Your task to perform on an android device: Open the Play Movies app and select the watchlist tab. Image 0: 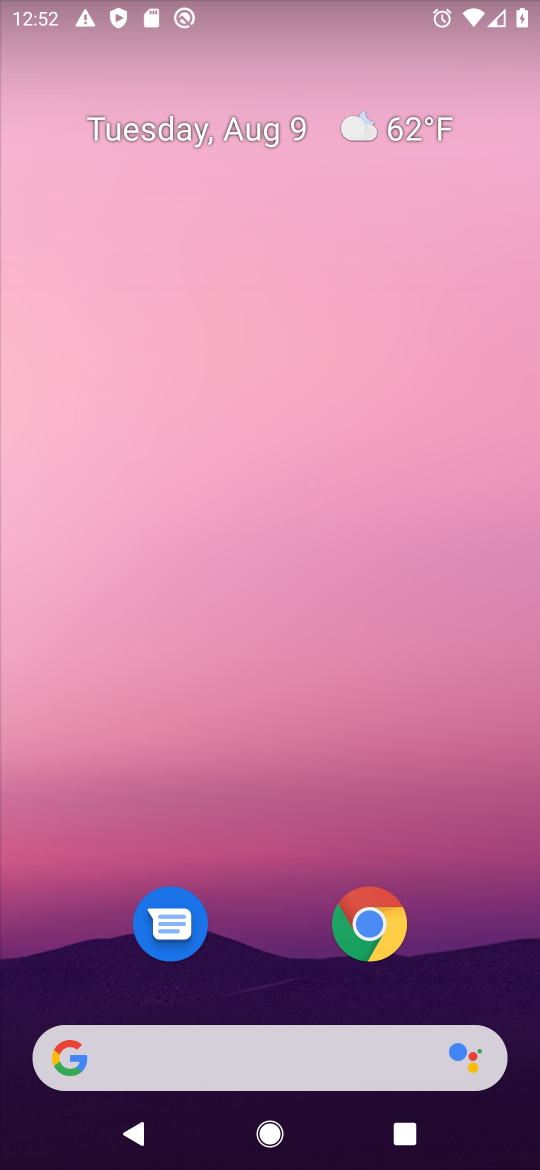
Step 0: drag from (276, 1015) to (223, 210)
Your task to perform on an android device: Open the Play Movies app and select the watchlist tab. Image 1: 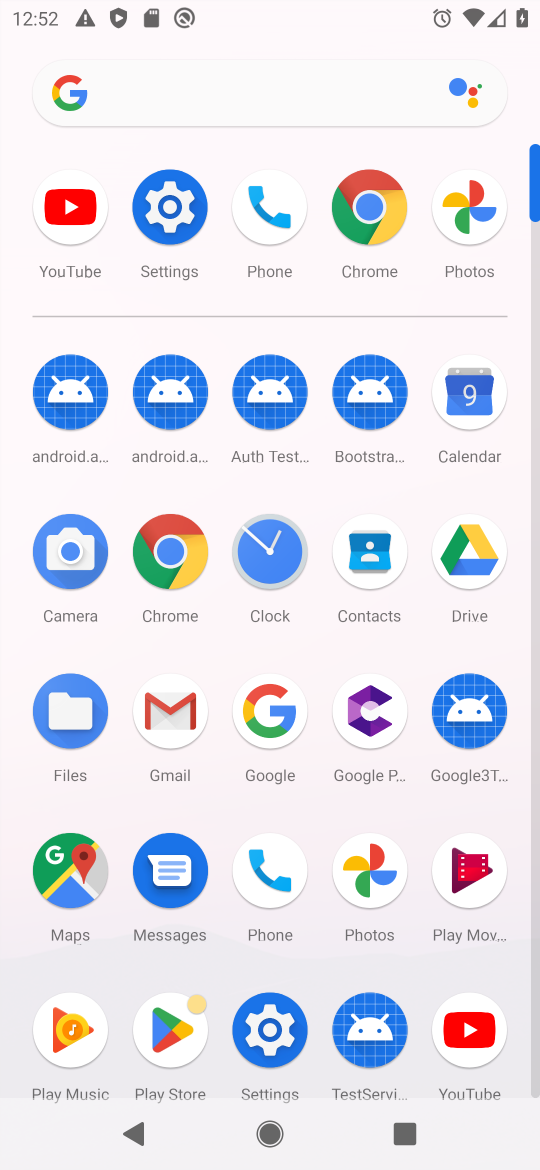
Step 1: click (467, 891)
Your task to perform on an android device: Open the Play Movies app and select the watchlist tab. Image 2: 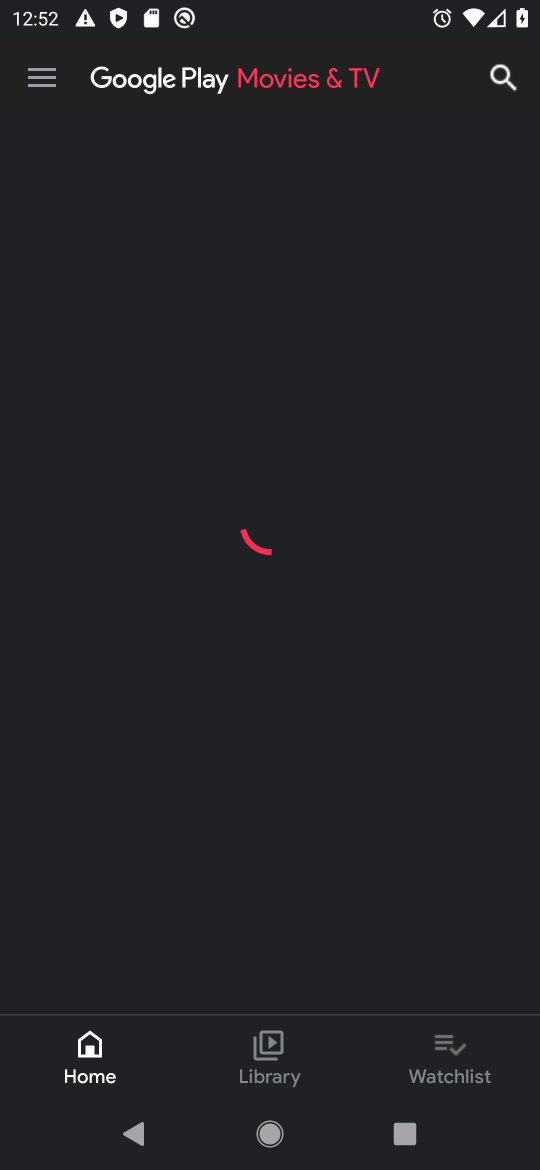
Step 2: click (465, 1044)
Your task to perform on an android device: Open the Play Movies app and select the watchlist tab. Image 3: 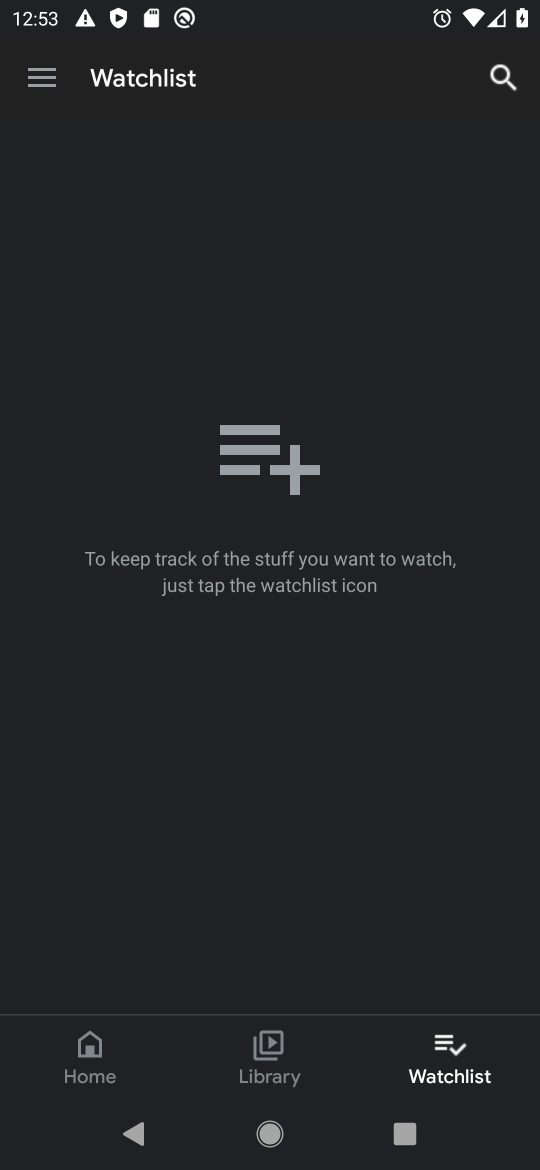
Step 3: task complete